Your task to perform on an android device: set default search engine in the chrome app Image 0: 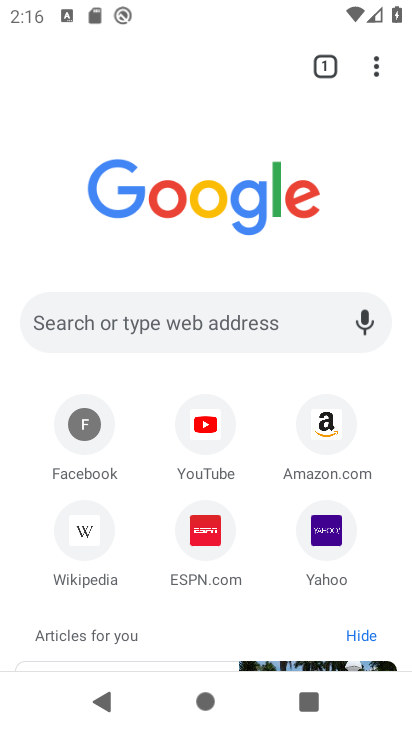
Step 0: press home button
Your task to perform on an android device: set default search engine in the chrome app Image 1: 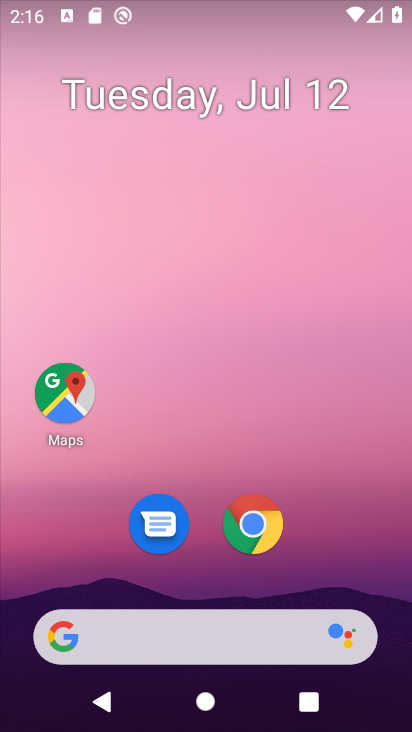
Step 1: click (263, 523)
Your task to perform on an android device: set default search engine in the chrome app Image 2: 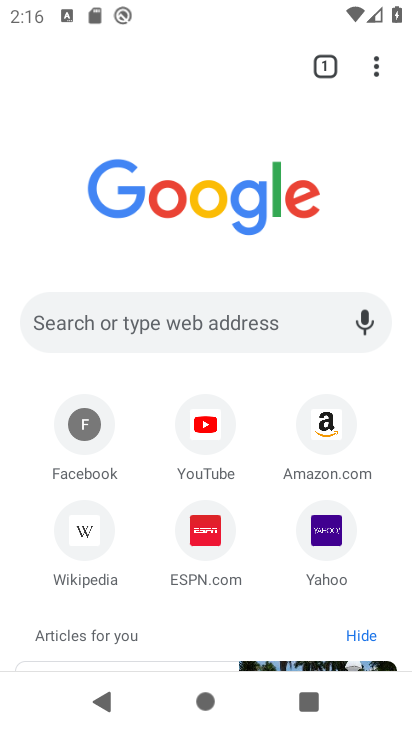
Step 2: click (378, 67)
Your task to perform on an android device: set default search engine in the chrome app Image 3: 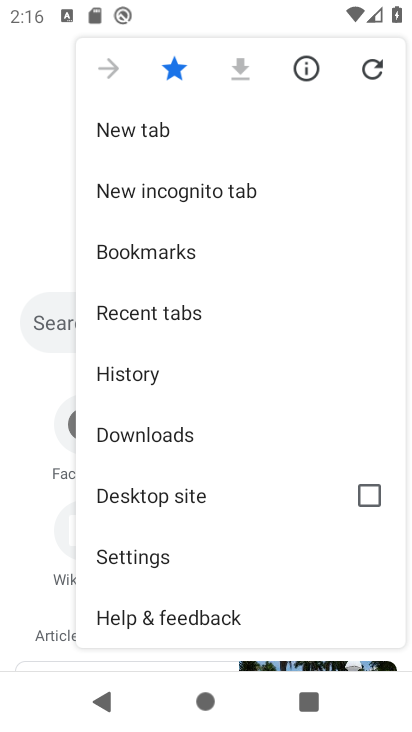
Step 3: click (152, 558)
Your task to perform on an android device: set default search engine in the chrome app Image 4: 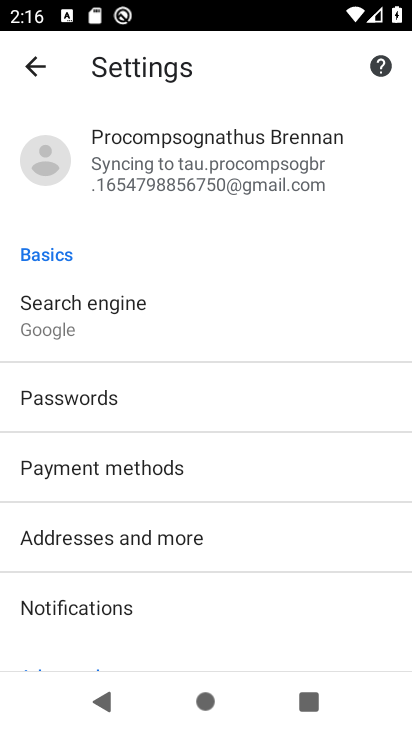
Step 4: click (109, 315)
Your task to perform on an android device: set default search engine in the chrome app Image 5: 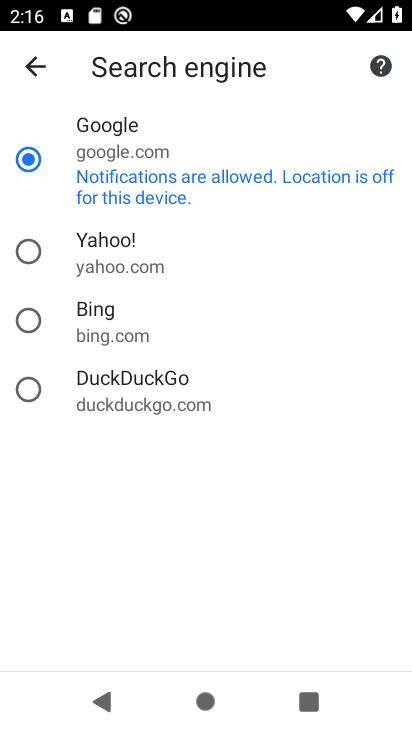
Step 5: task complete